Your task to perform on an android device: View the shopping cart on costco. Add "acer nitro" to the cart on costco Image 0: 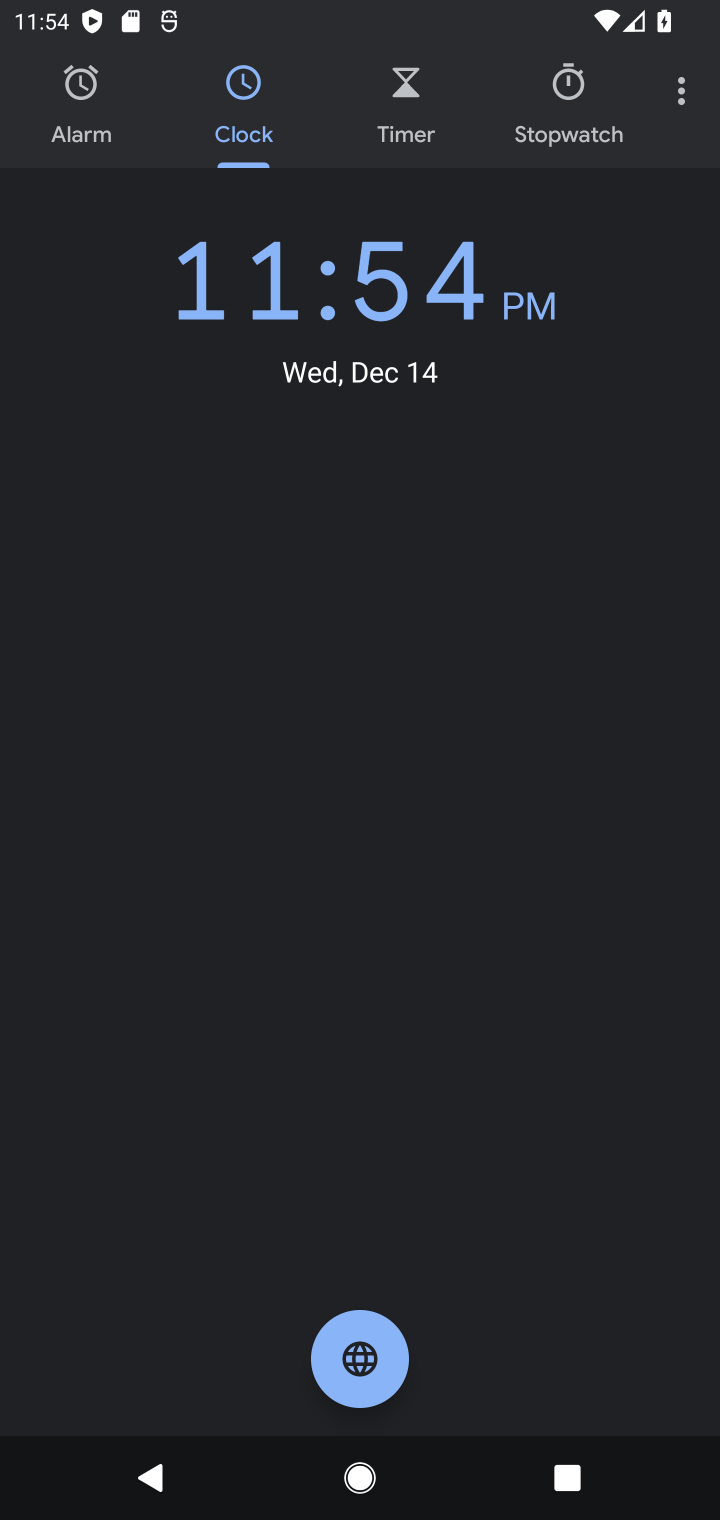
Step 0: task complete